Your task to perform on an android device: Go to sound settings Image 0: 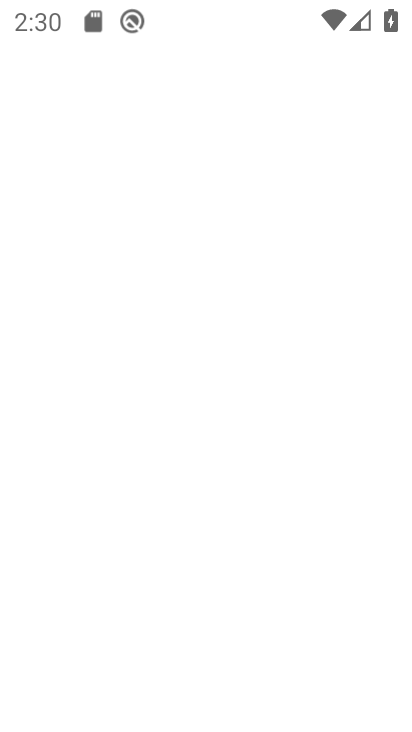
Step 0: drag from (269, 677) to (198, 173)
Your task to perform on an android device: Go to sound settings Image 1: 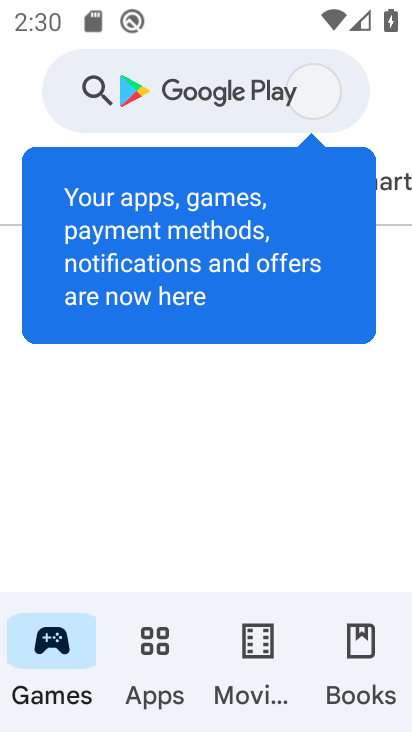
Step 1: press back button
Your task to perform on an android device: Go to sound settings Image 2: 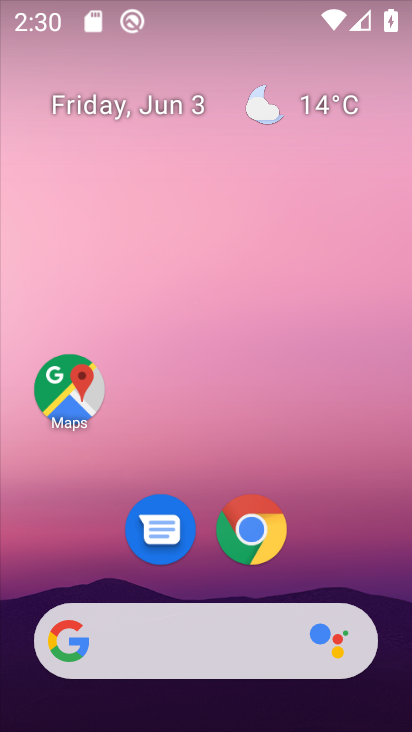
Step 2: drag from (280, 631) to (264, 238)
Your task to perform on an android device: Go to sound settings Image 3: 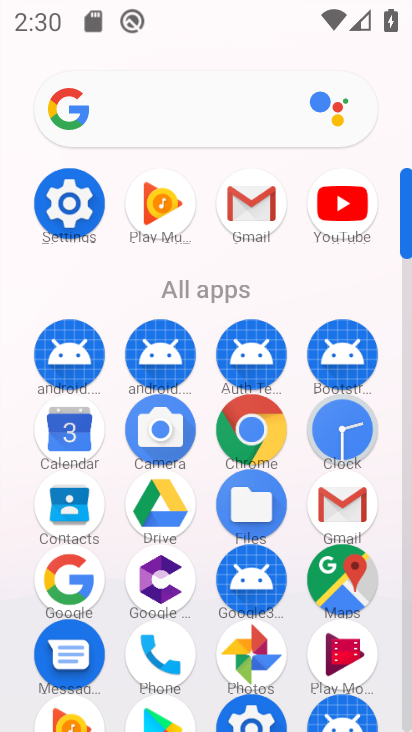
Step 3: drag from (238, 455) to (241, 209)
Your task to perform on an android device: Go to sound settings Image 4: 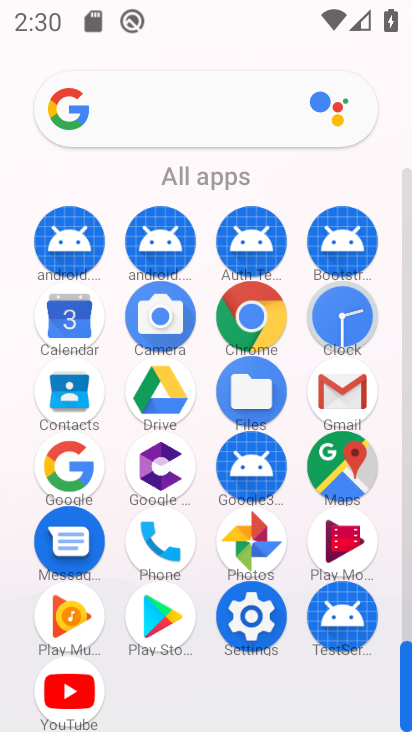
Step 4: drag from (216, 396) to (230, 252)
Your task to perform on an android device: Go to sound settings Image 5: 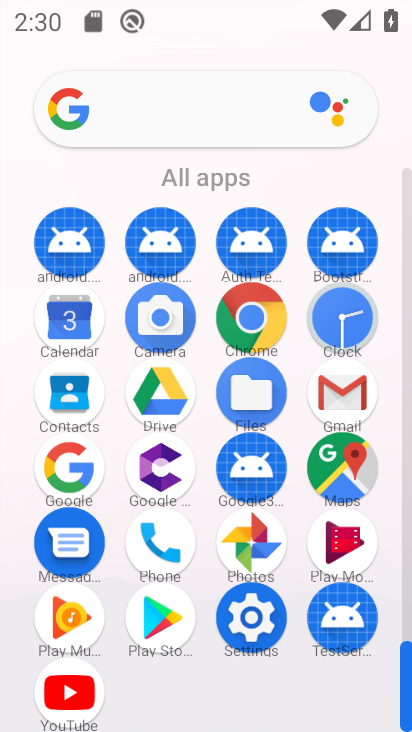
Step 5: click (241, 629)
Your task to perform on an android device: Go to sound settings Image 6: 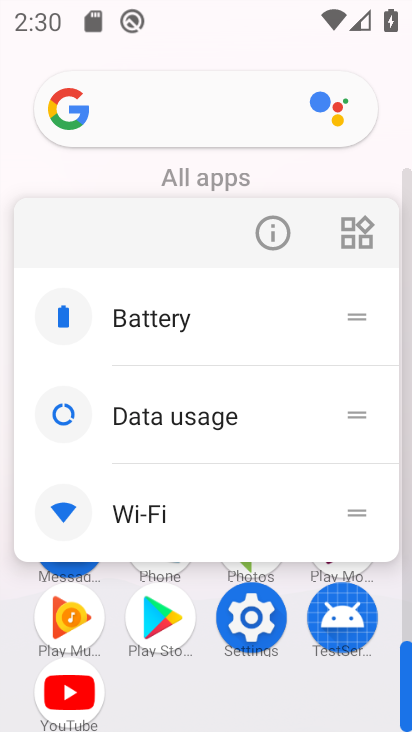
Step 6: click (241, 629)
Your task to perform on an android device: Go to sound settings Image 7: 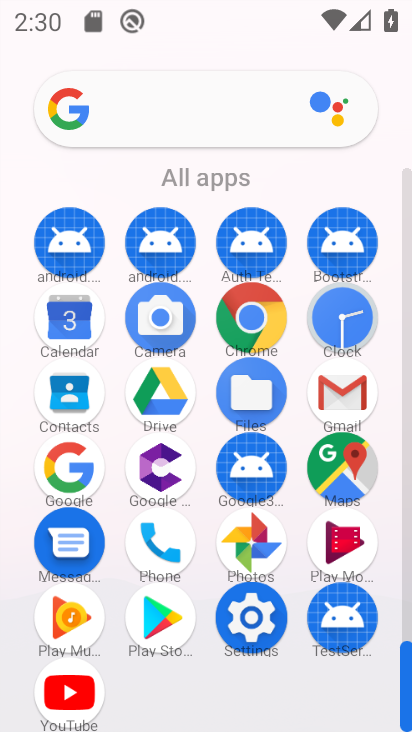
Step 7: click (241, 629)
Your task to perform on an android device: Go to sound settings Image 8: 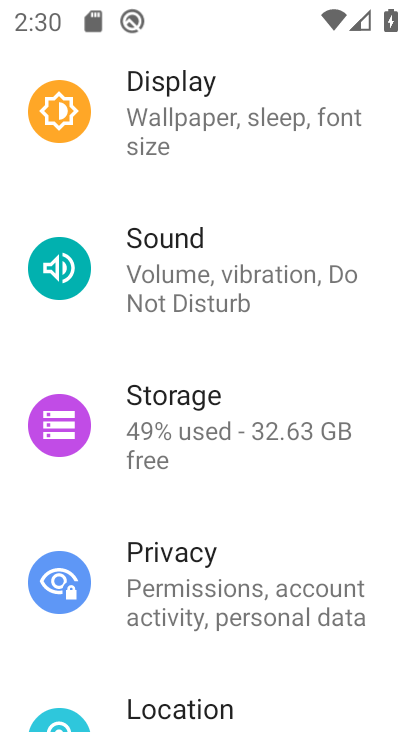
Step 8: click (147, 260)
Your task to perform on an android device: Go to sound settings Image 9: 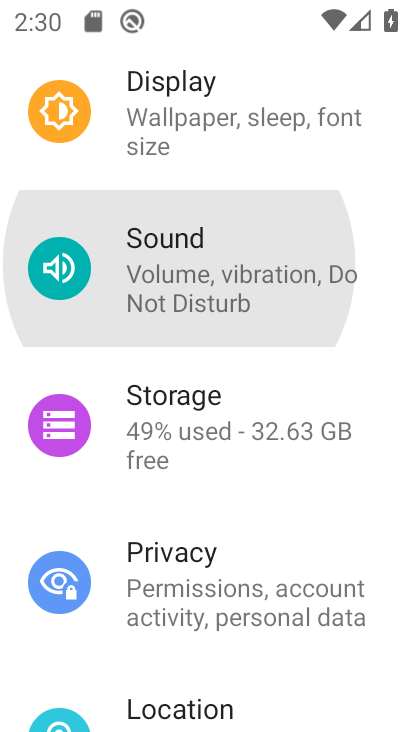
Step 9: click (147, 260)
Your task to perform on an android device: Go to sound settings Image 10: 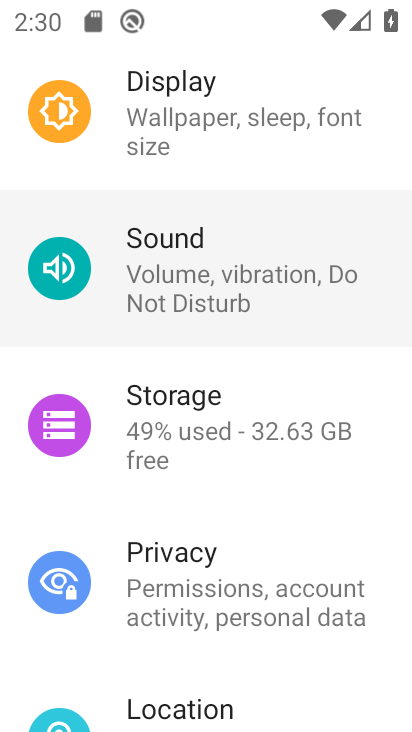
Step 10: click (146, 259)
Your task to perform on an android device: Go to sound settings Image 11: 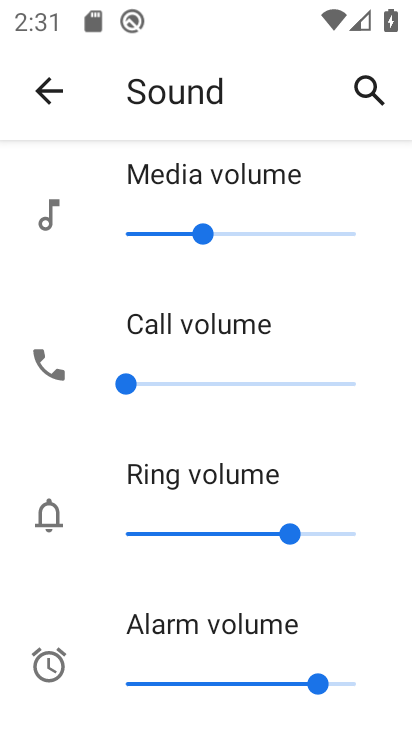
Step 11: task complete